Your task to perform on an android device: toggle notifications settings in the gmail app Image 0: 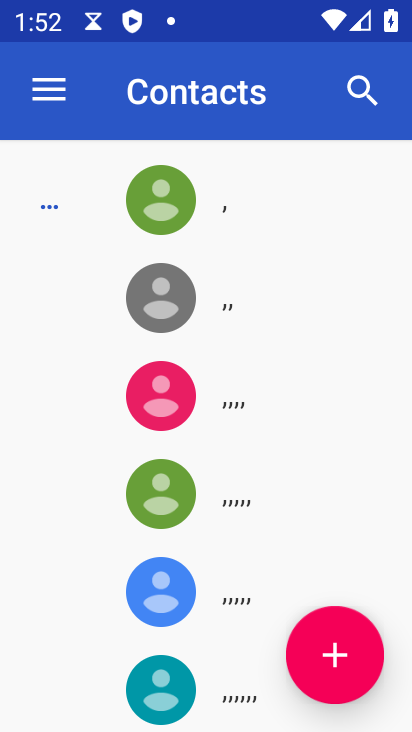
Step 0: press back button
Your task to perform on an android device: toggle notifications settings in the gmail app Image 1: 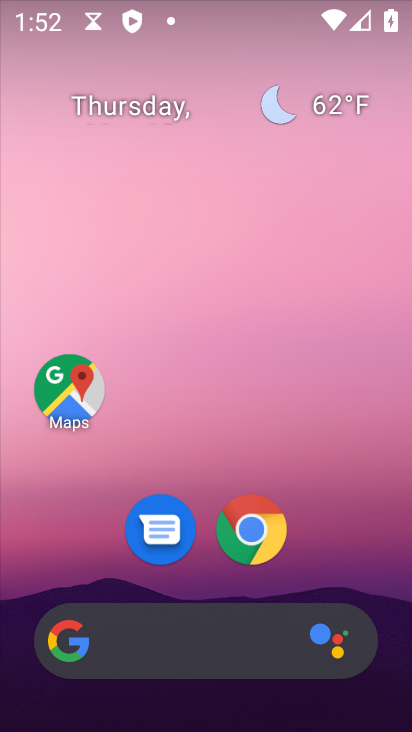
Step 1: drag from (327, 532) to (207, 183)
Your task to perform on an android device: toggle notifications settings in the gmail app Image 2: 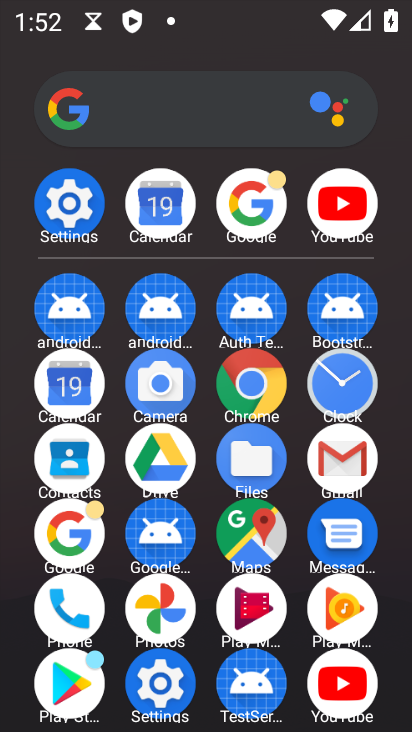
Step 2: click (340, 457)
Your task to perform on an android device: toggle notifications settings in the gmail app Image 3: 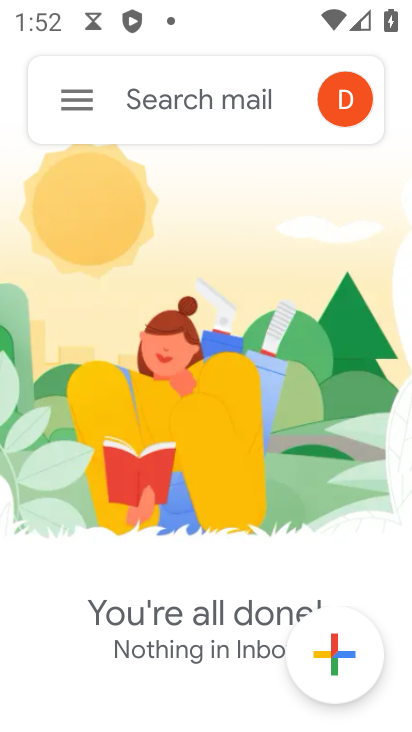
Step 3: click (82, 102)
Your task to perform on an android device: toggle notifications settings in the gmail app Image 4: 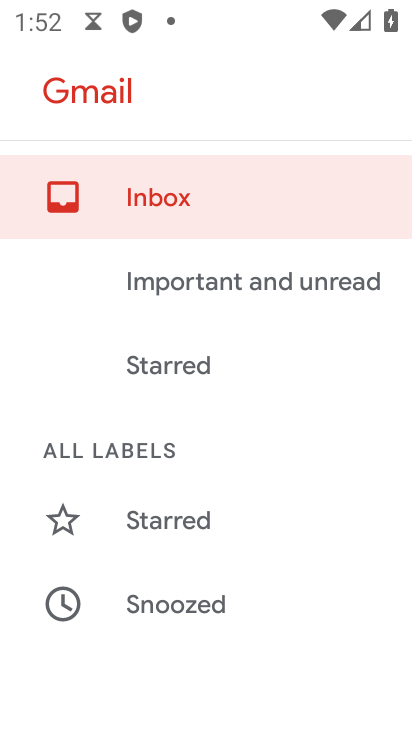
Step 4: drag from (162, 401) to (216, 272)
Your task to perform on an android device: toggle notifications settings in the gmail app Image 5: 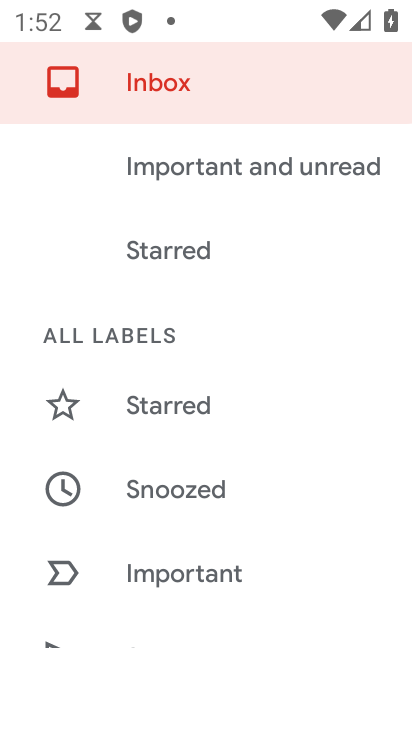
Step 5: drag from (164, 439) to (199, 346)
Your task to perform on an android device: toggle notifications settings in the gmail app Image 6: 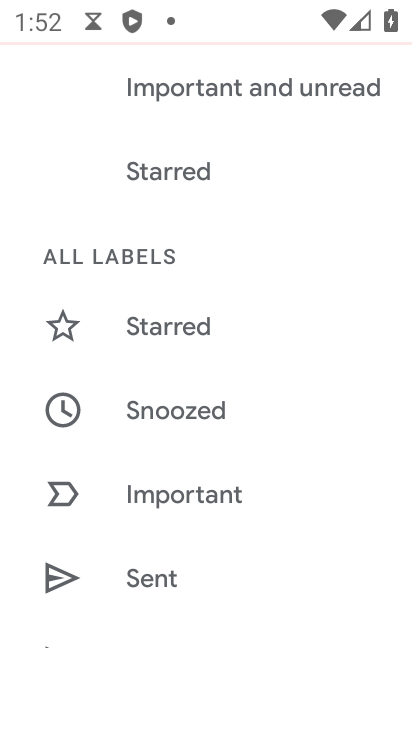
Step 6: drag from (162, 452) to (260, 326)
Your task to perform on an android device: toggle notifications settings in the gmail app Image 7: 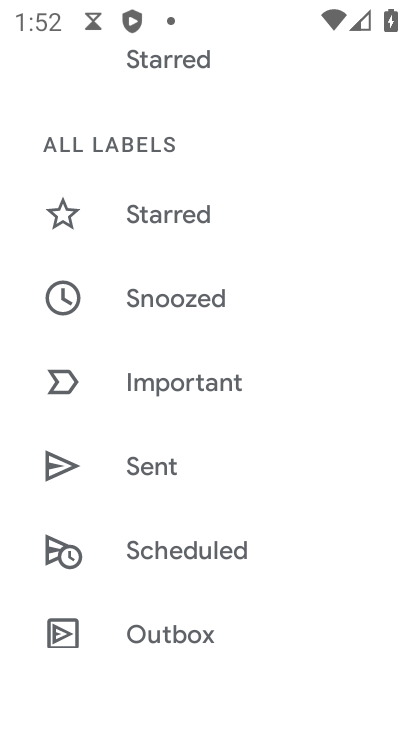
Step 7: drag from (168, 471) to (253, 369)
Your task to perform on an android device: toggle notifications settings in the gmail app Image 8: 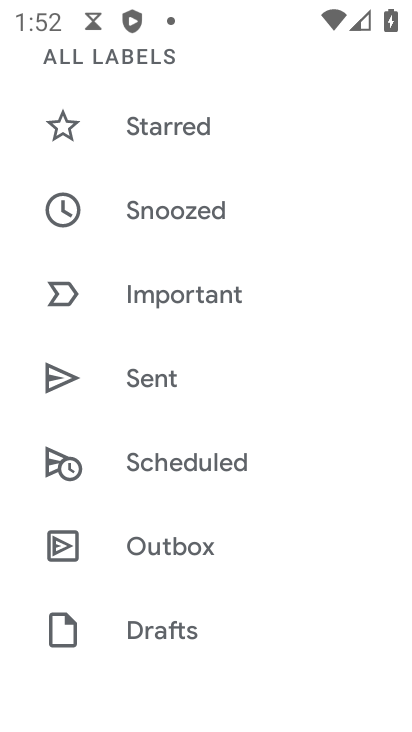
Step 8: drag from (167, 508) to (251, 389)
Your task to perform on an android device: toggle notifications settings in the gmail app Image 9: 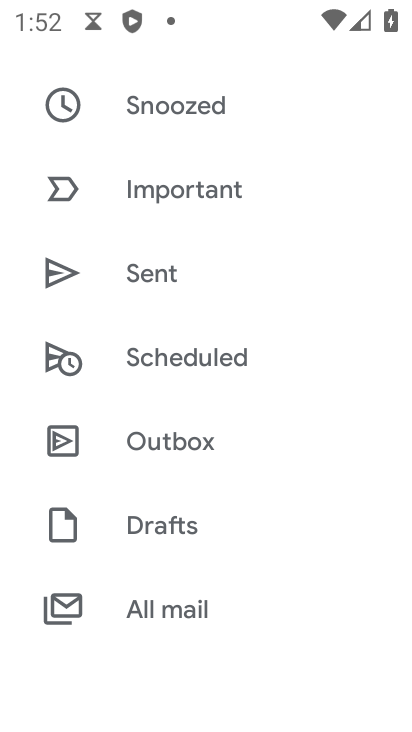
Step 9: drag from (141, 553) to (241, 425)
Your task to perform on an android device: toggle notifications settings in the gmail app Image 10: 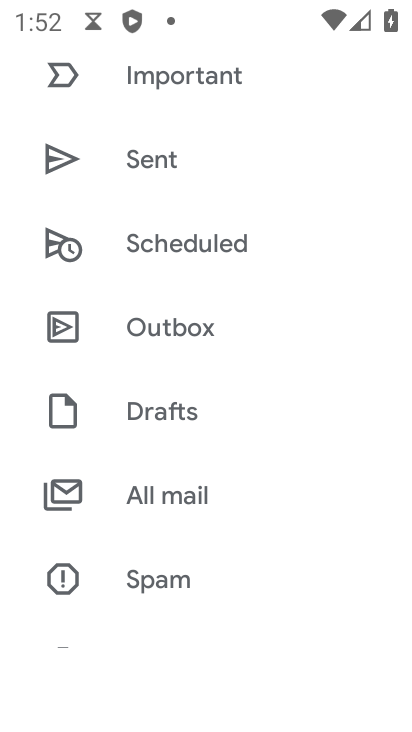
Step 10: drag from (160, 534) to (254, 405)
Your task to perform on an android device: toggle notifications settings in the gmail app Image 11: 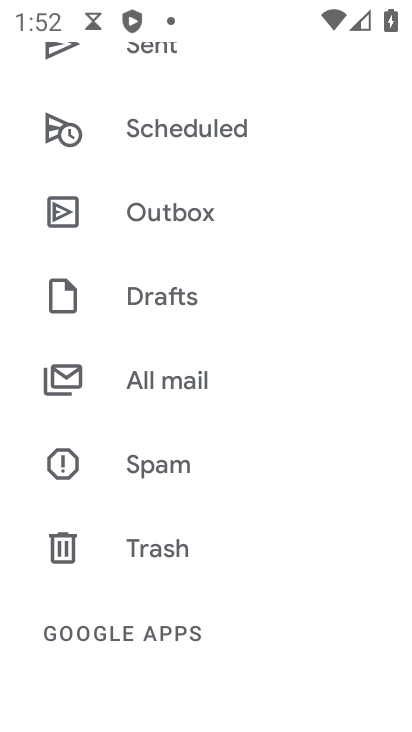
Step 11: drag from (157, 496) to (209, 420)
Your task to perform on an android device: toggle notifications settings in the gmail app Image 12: 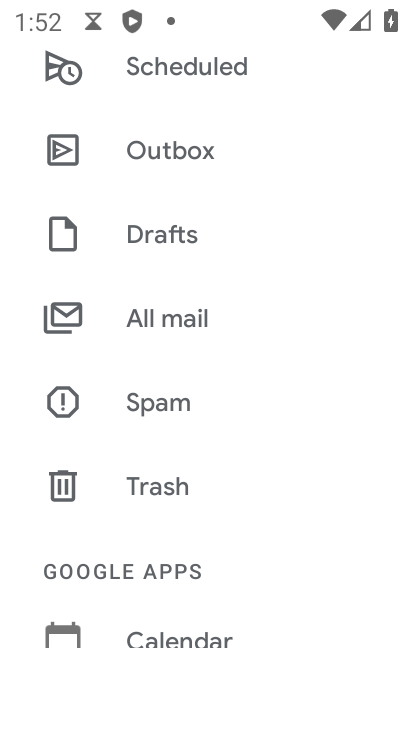
Step 12: drag from (144, 552) to (235, 429)
Your task to perform on an android device: toggle notifications settings in the gmail app Image 13: 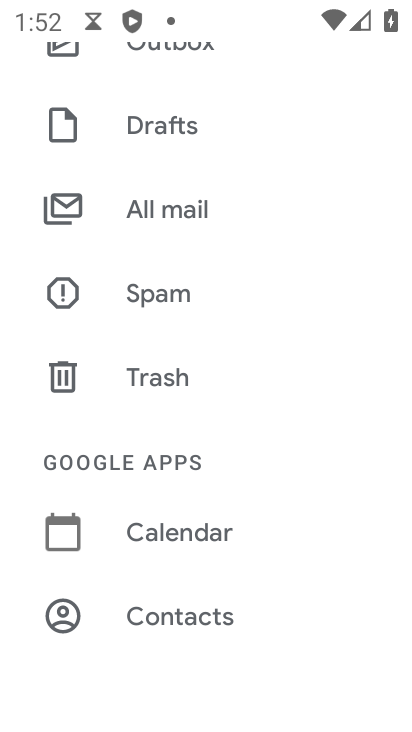
Step 13: drag from (155, 591) to (248, 469)
Your task to perform on an android device: toggle notifications settings in the gmail app Image 14: 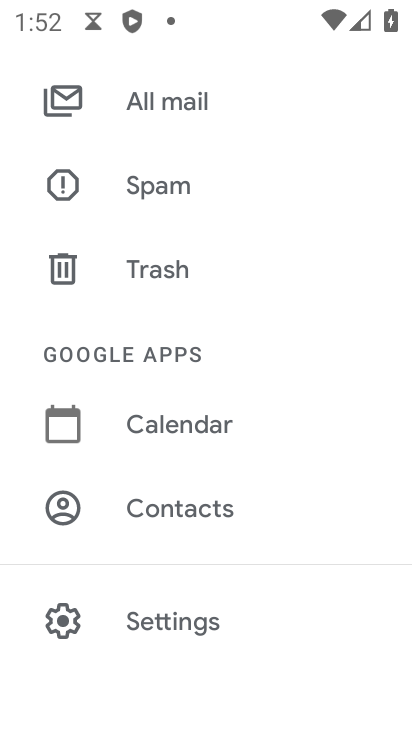
Step 14: drag from (165, 600) to (254, 458)
Your task to perform on an android device: toggle notifications settings in the gmail app Image 15: 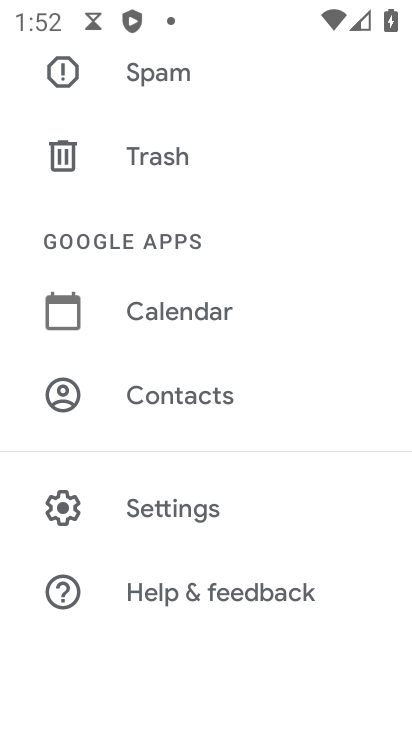
Step 15: click (211, 513)
Your task to perform on an android device: toggle notifications settings in the gmail app Image 16: 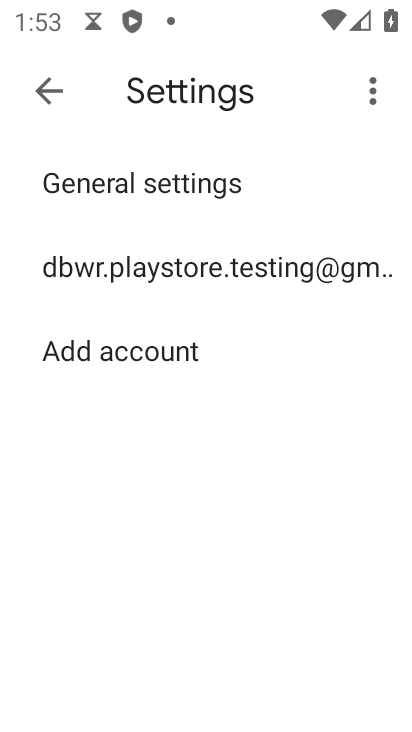
Step 16: click (258, 276)
Your task to perform on an android device: toggle notifications settings in the gmail app Image 17: 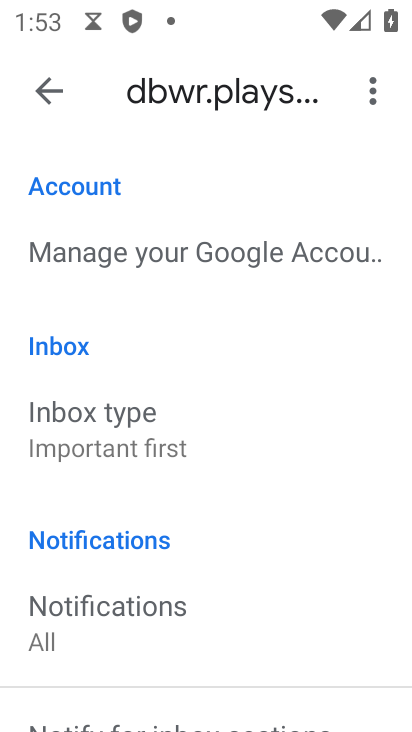
Step 17: drag from (179, 497) to (248, 377)
Your task to perform on an android device: toggle notifications settings in the gmail app Image 18: 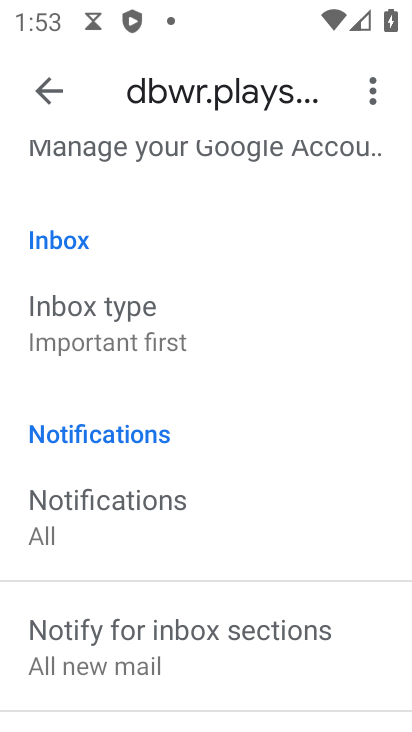
Step 18: drag from (155, 550) to (252, 413)
Your task to perform on an android device: toggle notifications settings in the gmail app Image 19: 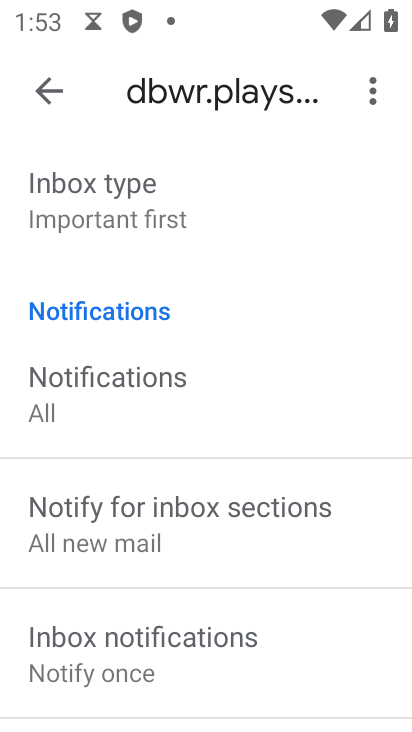
Step 19: drag from (220, 575) to (270, 404)
Your task to perform on an android device: toggle notifications settings in the gmail app Image 20: 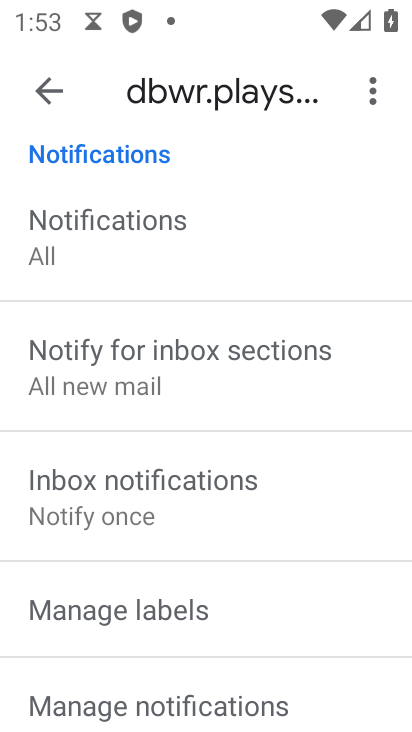
Step 20: click (214, 708)
Your task to perform on an android device: toggle notifications settings in the gmail app Image 21: 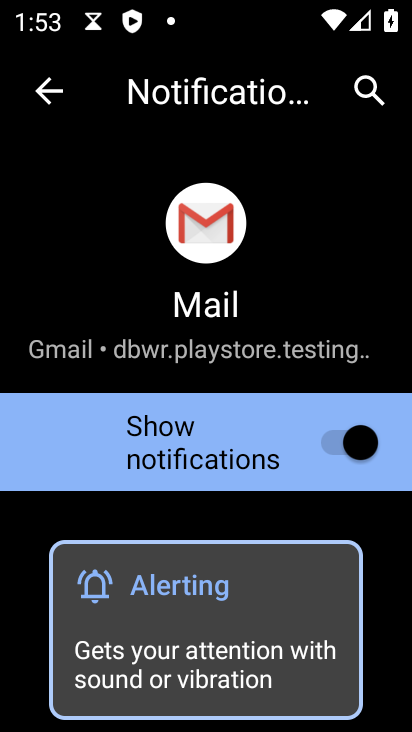
Step 21: click (371, 436)
Your task to perform on an android device: toggle notifications settings in the gmail app Image 22: 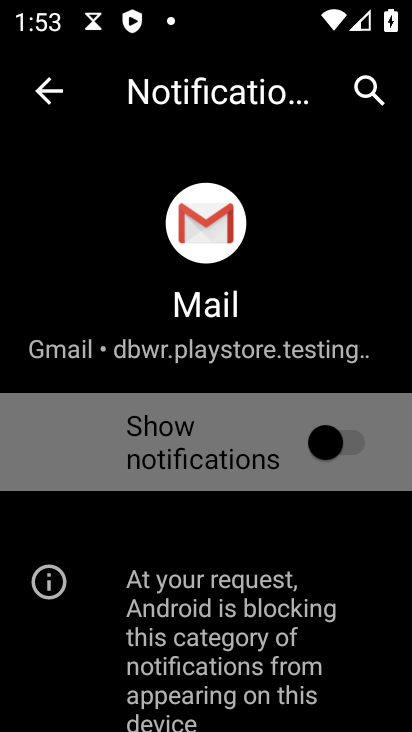
Step 22: task complete